Your task to perform on an android device: View the shopping cart on ebay.com. Add "macbook pro 15 inch" to the cart on ebay.com, then select checkout. Image 0: 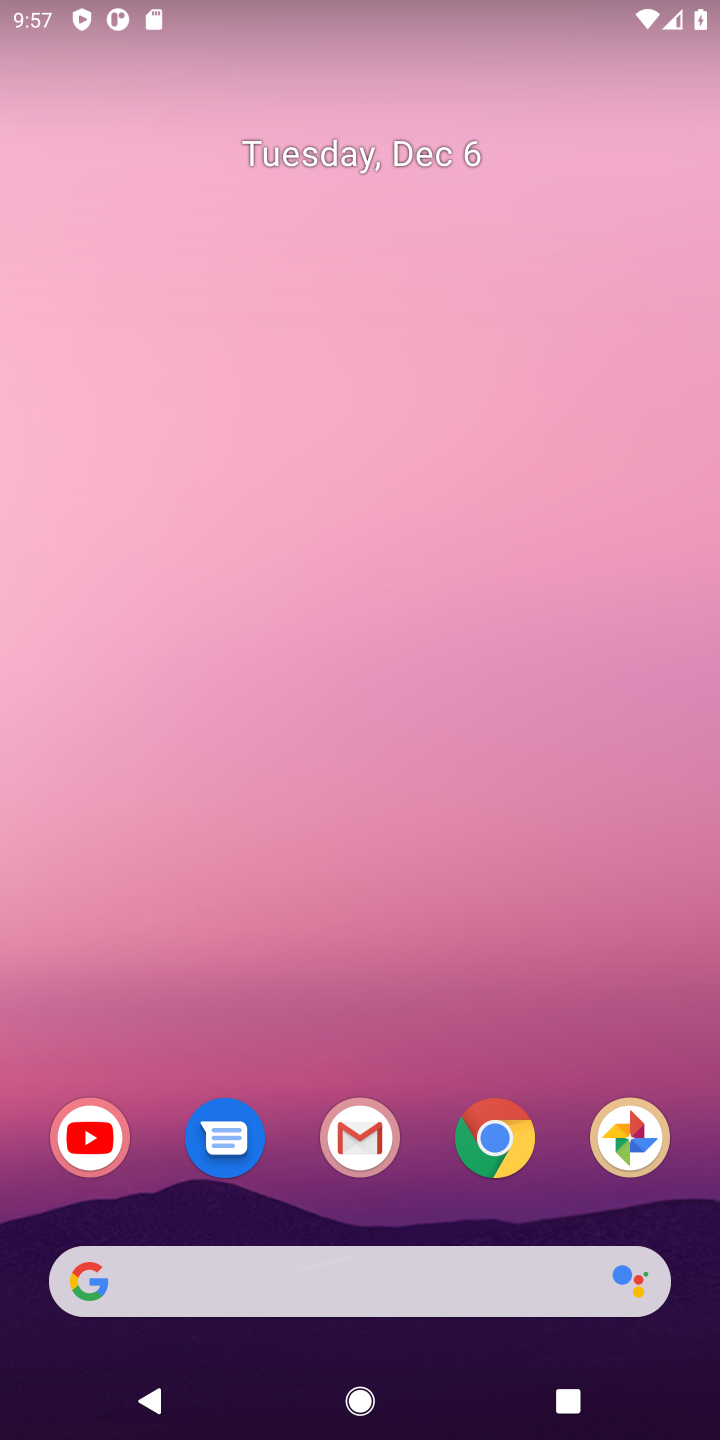
Step 0: click (497, 1147)
Your task to perform on an android device: View the shopping cart on ebay.com. Add "macbook pro 15 inch" to the cart on ebay.com, then select checkout. Image 1: 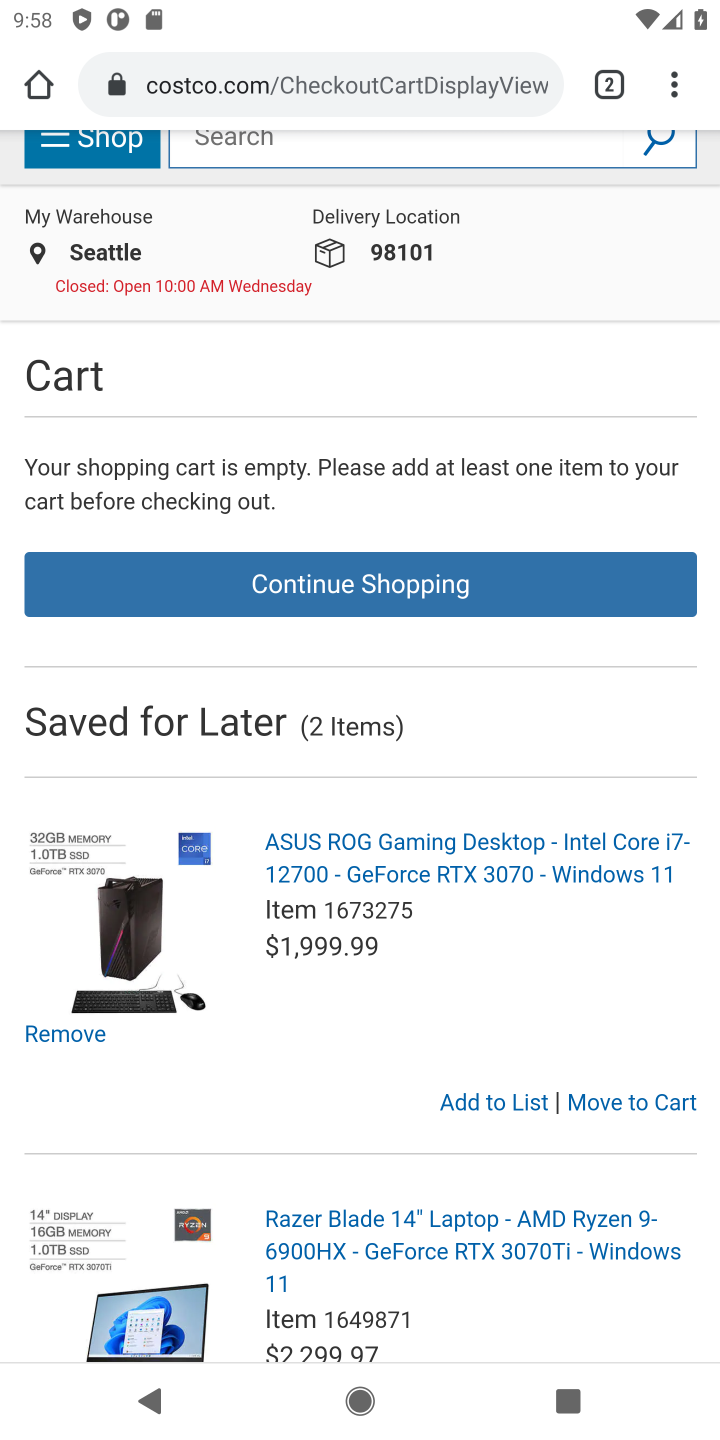
Step 1: click (269, 89)
Your task to perform on an android device: View the shopping cart on ebay.com. Add "macbook pro 15 inch" to the cart on ebay.com, then select checkout. Image 2: 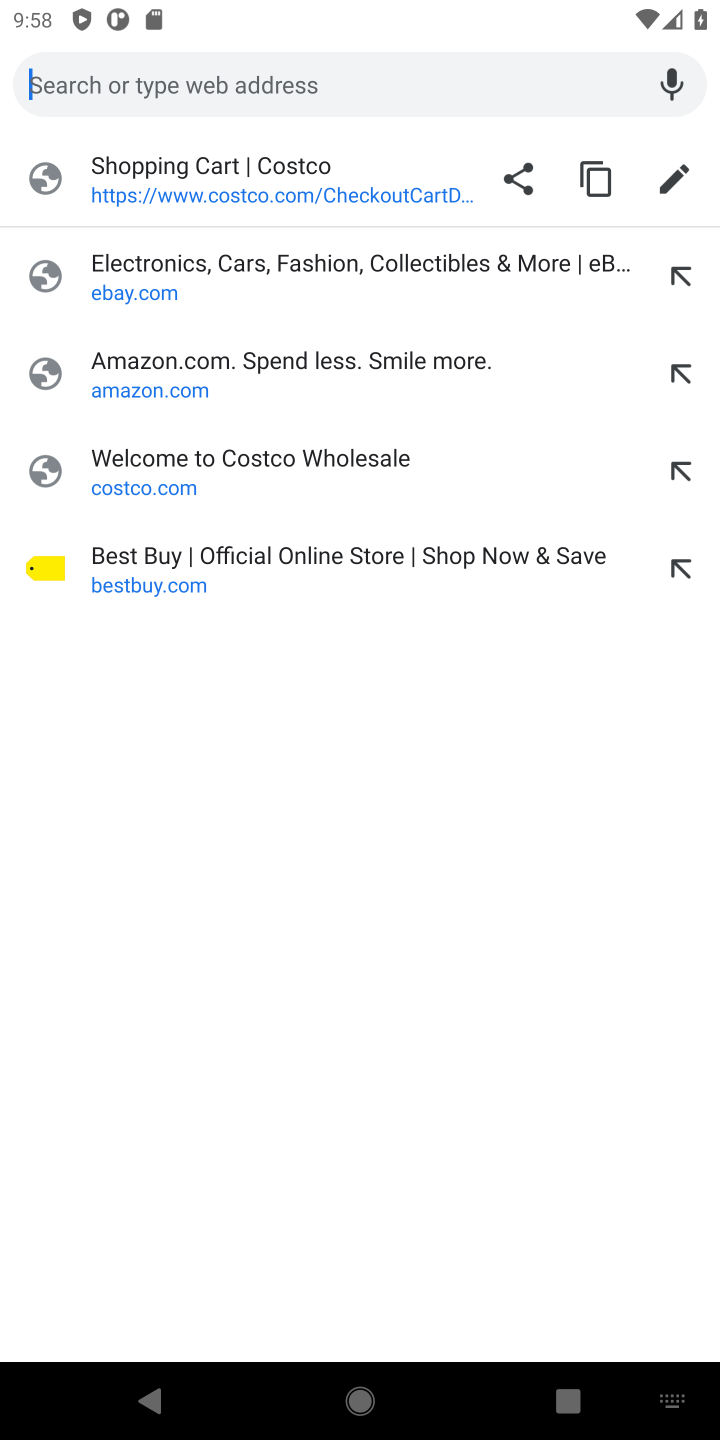
Step 2: click (143, 262)
Your task to perform on an android device: View the shopping cart on ebay.com. Add "macbook pro 15 inch" to the cart on ebay.com, then select checkout. Image 3: 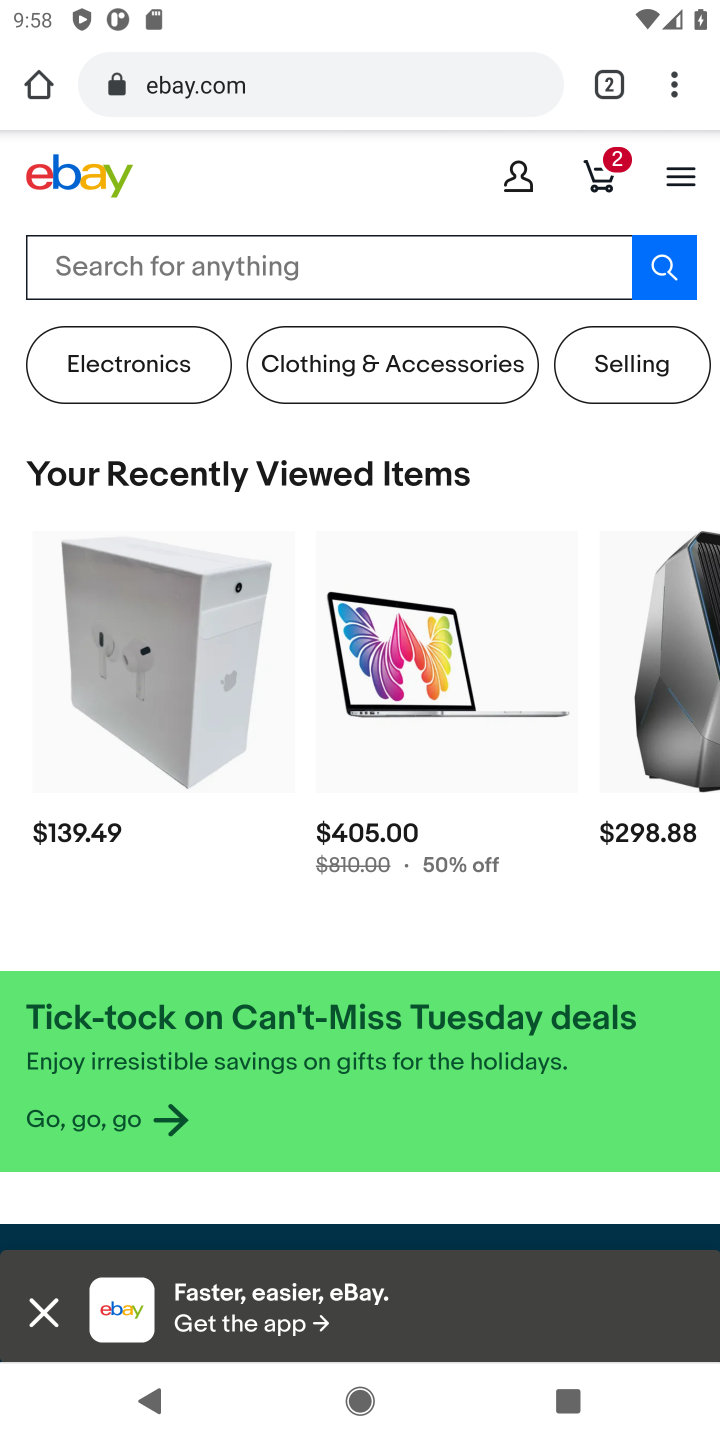
Step 3: click (607, 174)
Your task to perform on an android device: View the shopping cart on ebay.com. Add "macbook pro 15 inch" to the cart on ebay.com, then select checkout. Image 4: 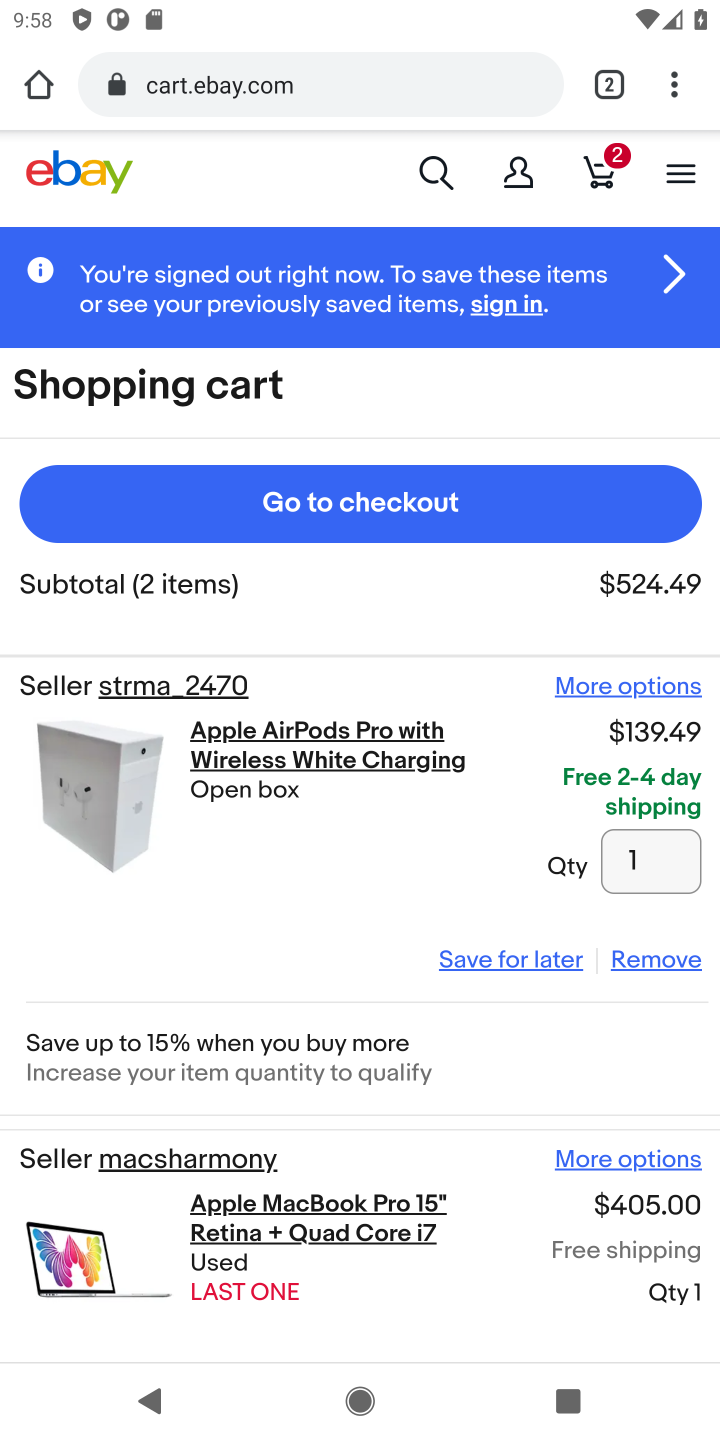
Step 4: click (440, 166)
Your task to perform on an android device: View the shopping cart on ebay.com. Add "macbook pro 15 inch" to the cart on ebay.com, then select checkout. Image 5: 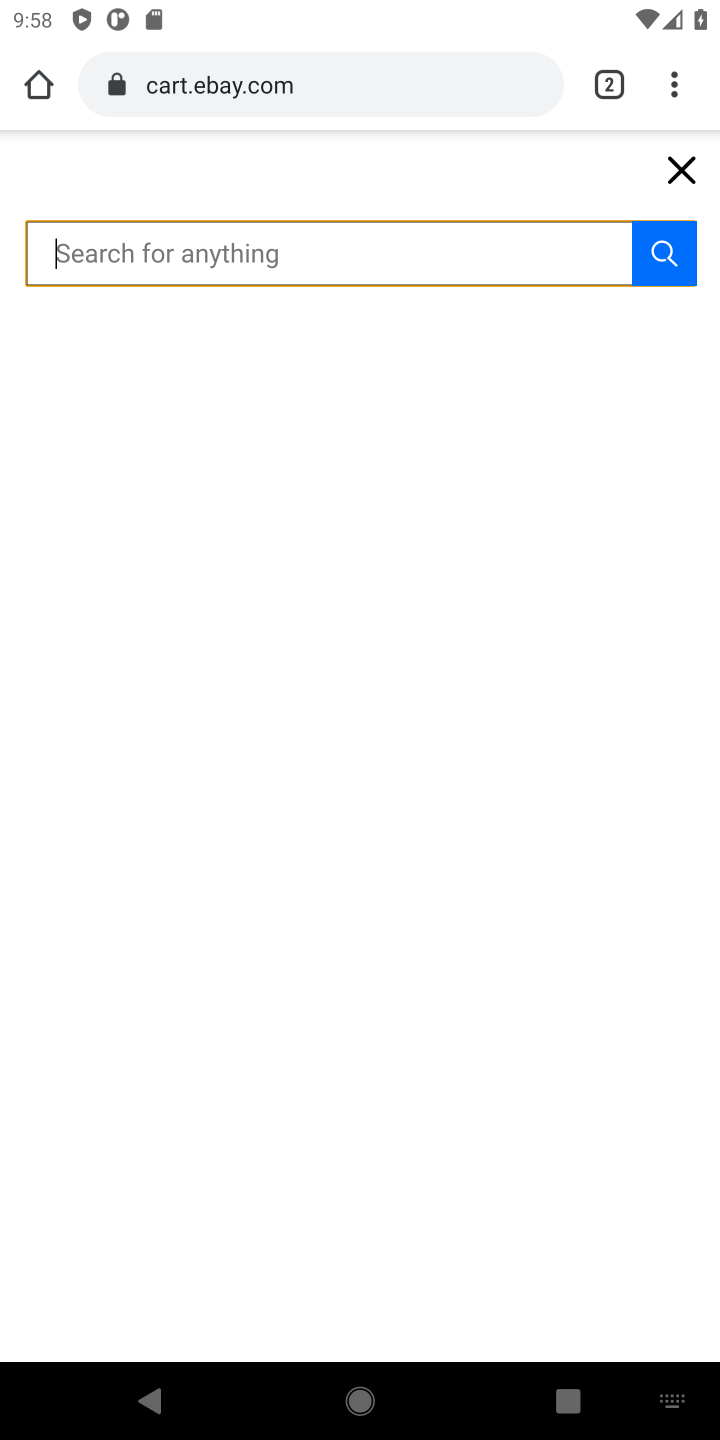
Step 5: type "macbook pro 15 inch"
Your task to perform on an android device: View the shopping cart on ebay.com. Add "macbook pro 15 inch" to the cart on ebay.com, then select checkout. Image 6: 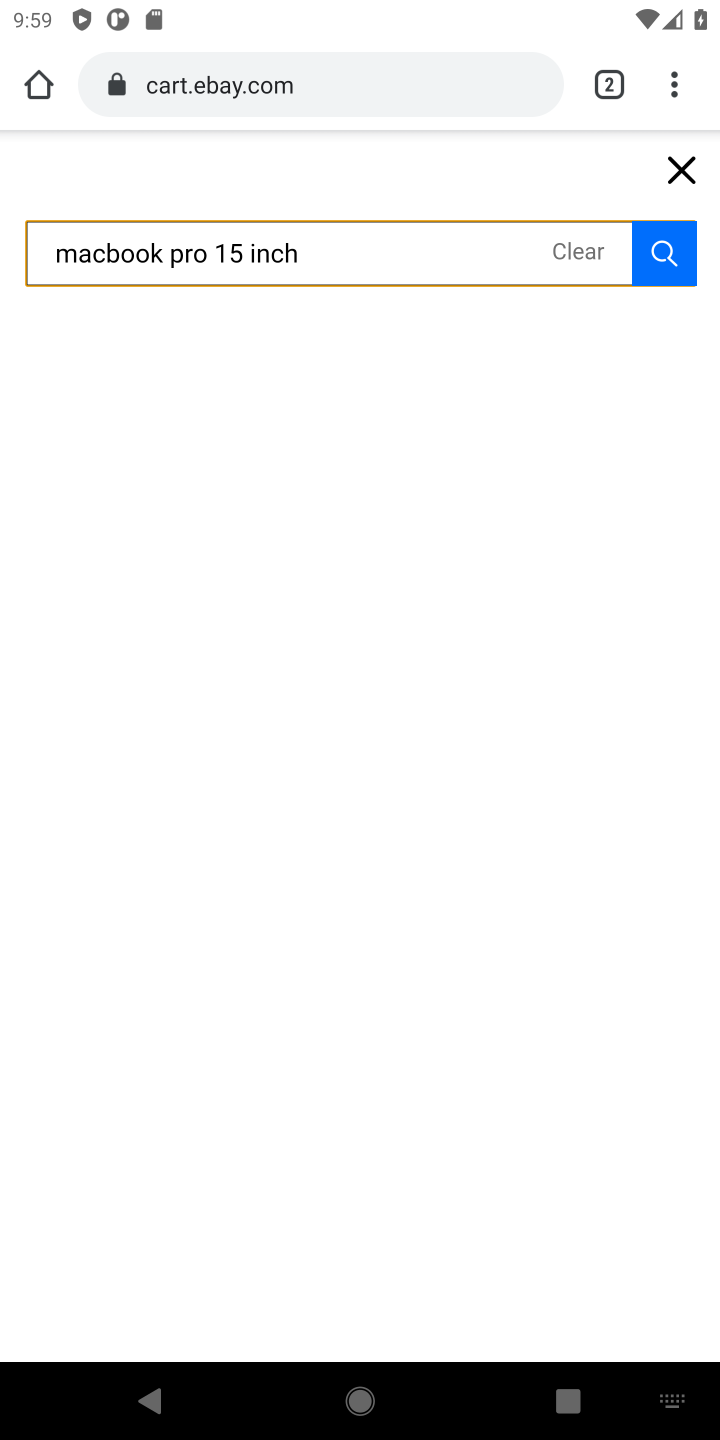
Step 6: click (665, 253)
Your task to perform on an android device: View the shopping cart on ebay.com. Add "macbook pro 15 inch" to the cart on ebay.com, then select checkout. Image 7: 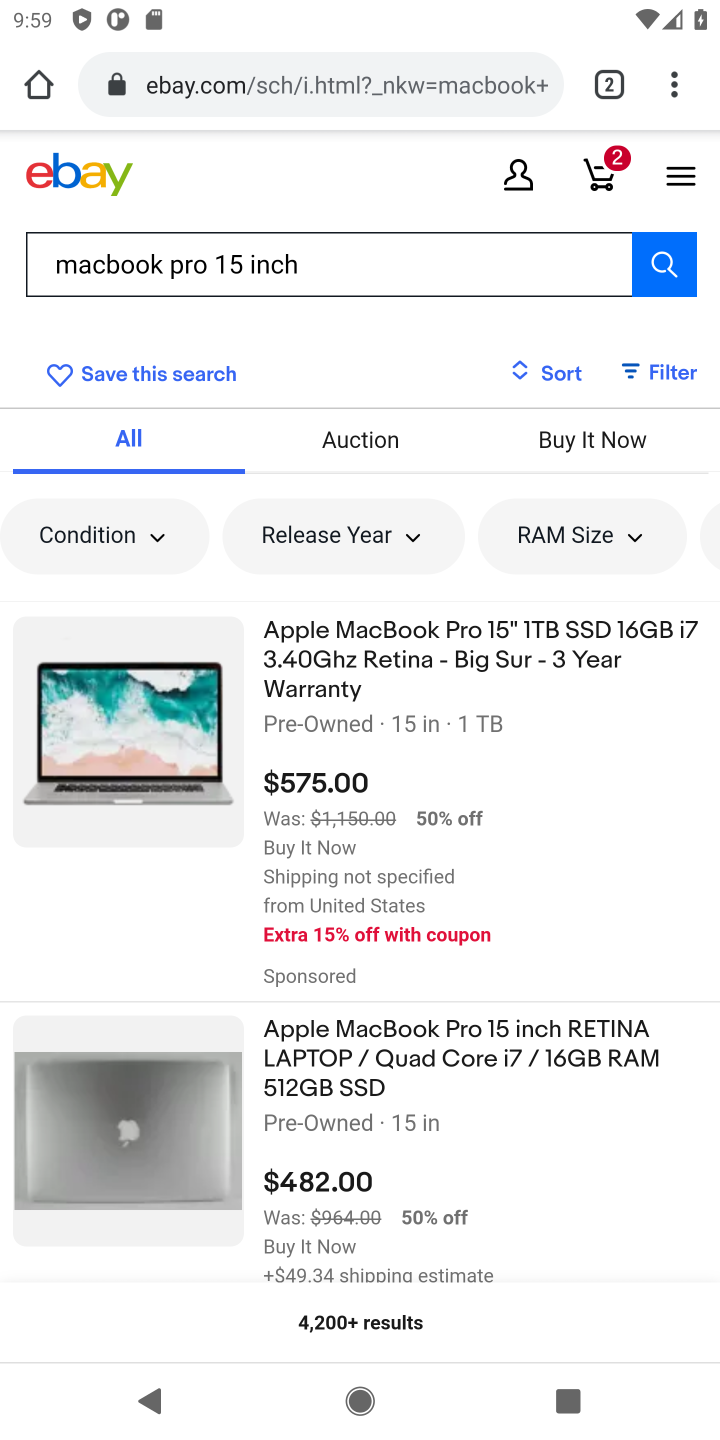
Step 7: click (289, 716)
Your task to perform on an android device: View the shopping cart on ebay.com. Add "macbook pro 15 inch" to the cart on ebay.com, then select checkout. Image 8: 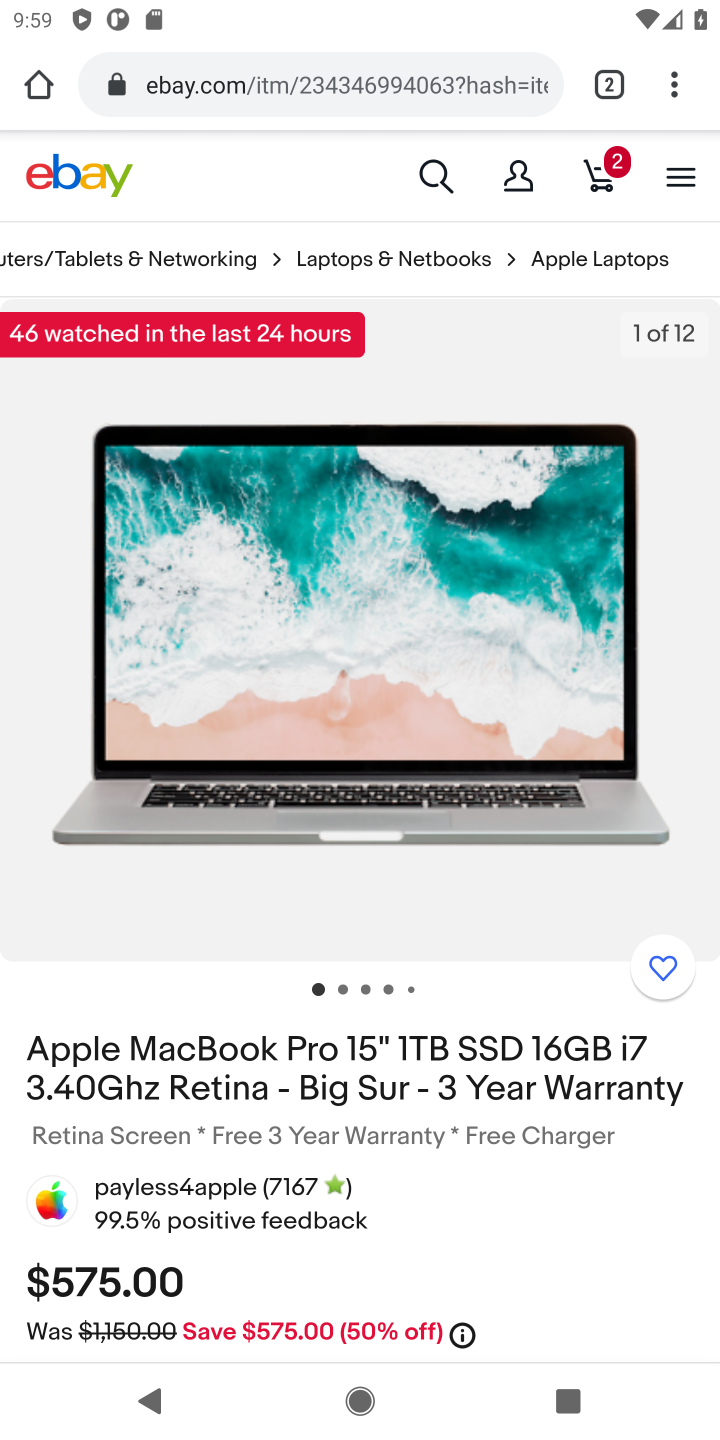
Step 8: drag from (397, 1016) to (406, 440)
Your task to perform on an android device: View the shopping cart on ebay.com. Add "macbook pro 15 inch" to the cart on ebay.com, then select checkout. Image 9: 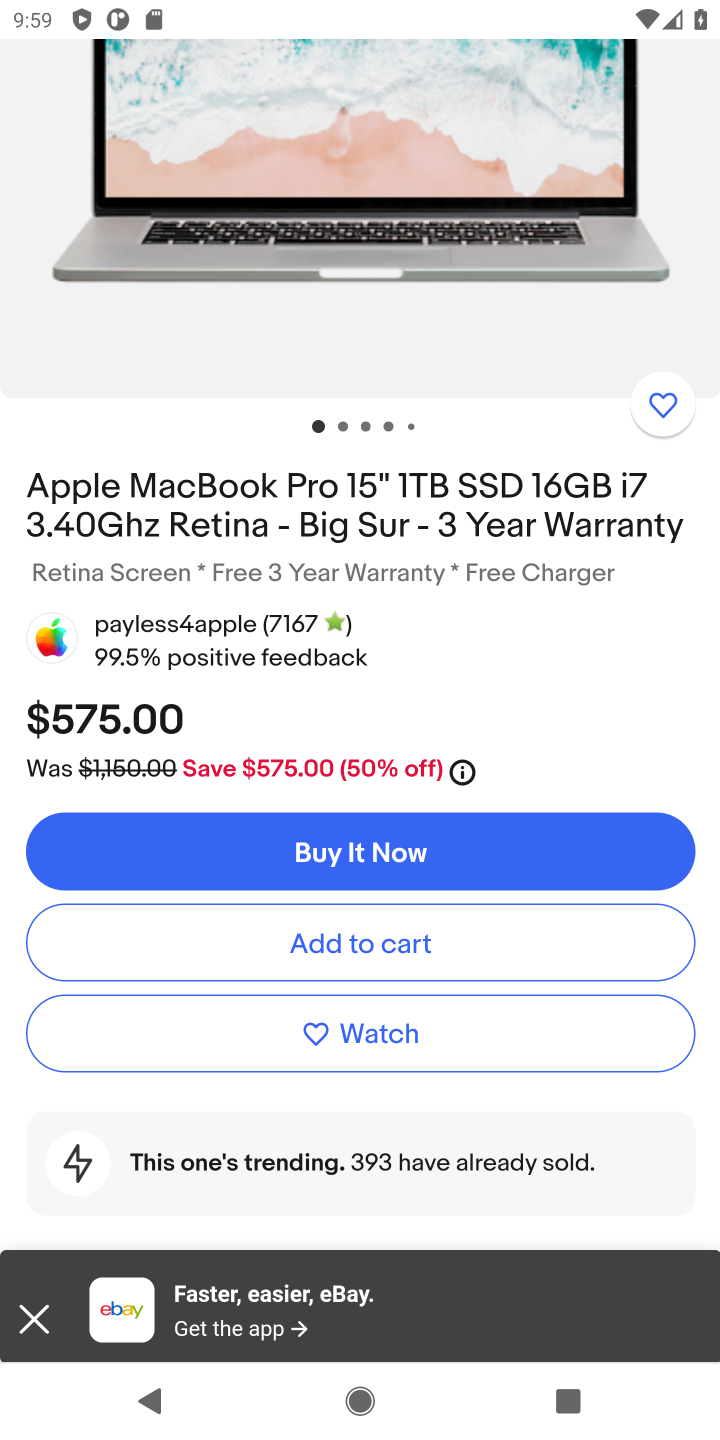
Step 9: click (362, 939)
Your task to perform on an android device: View the shopping cart on ebay.com. Add "macbook pro 15 inch" to the cart on ebay.com, then select checkout. Image 10: 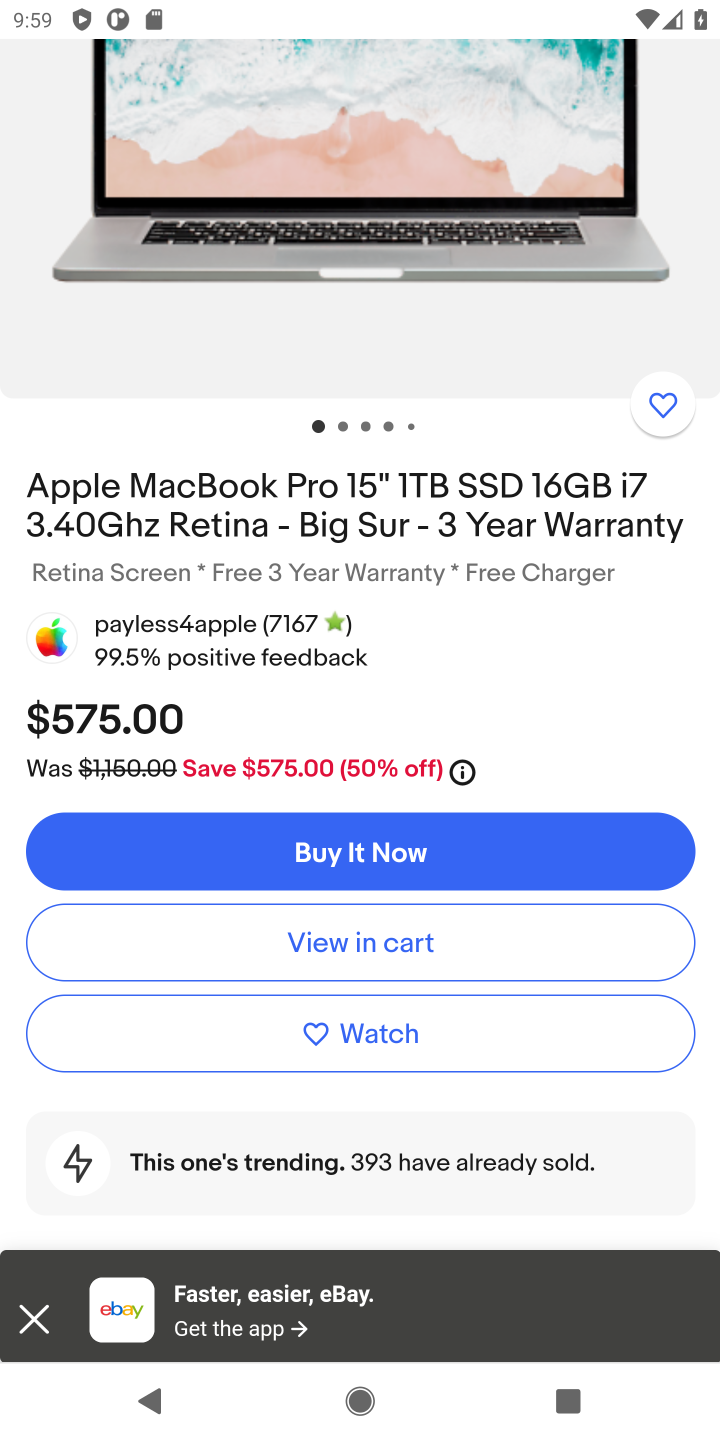
Step 10: click (362, 939)
Your task to perform on an android device: View the shopping cart on ebay.com. Add "macbook pro 15 inch" to the cart on ebay.com, then select checkout. Image 11: 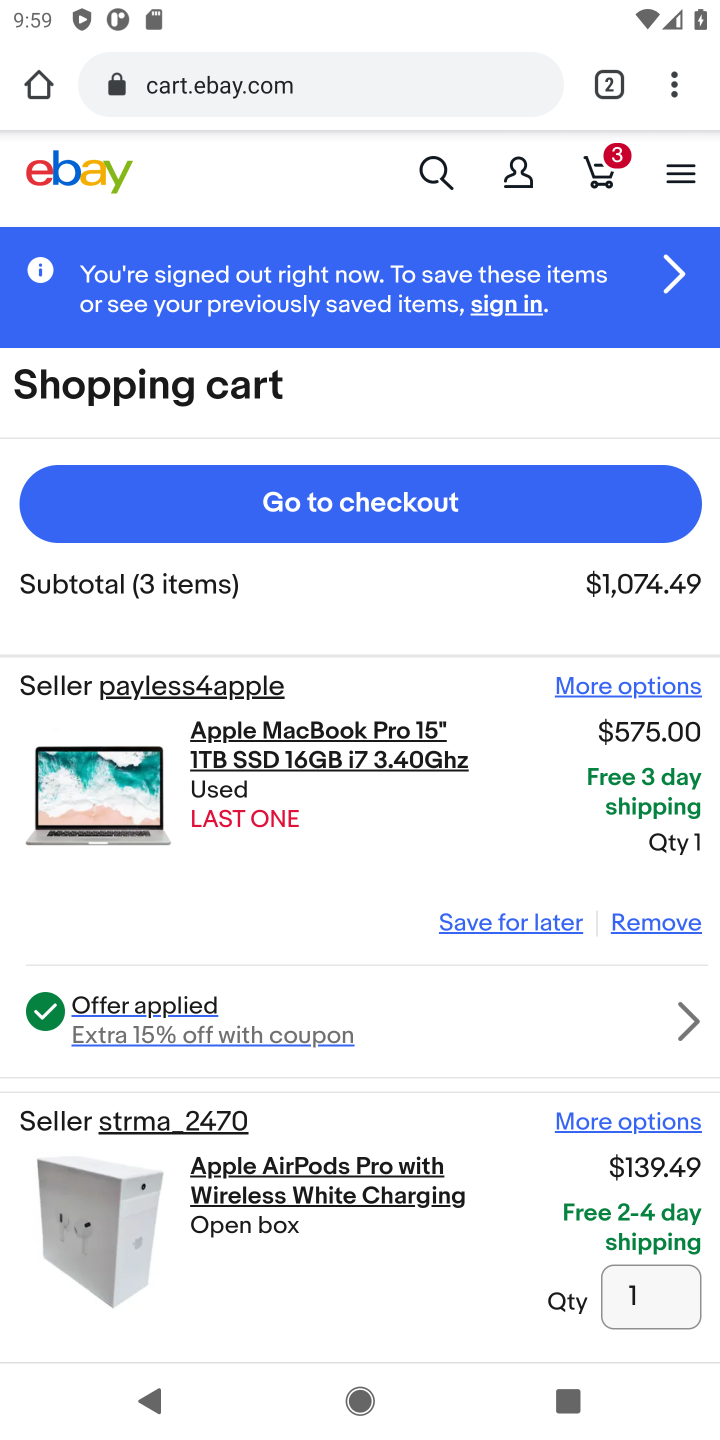
Step 11: click (346, 492)
Your task to perform on an android device: View the shopping cart on ebay.com. Add "macbook pro 15 inch" to the cart on ebay.com, then select checkout. Image 12: 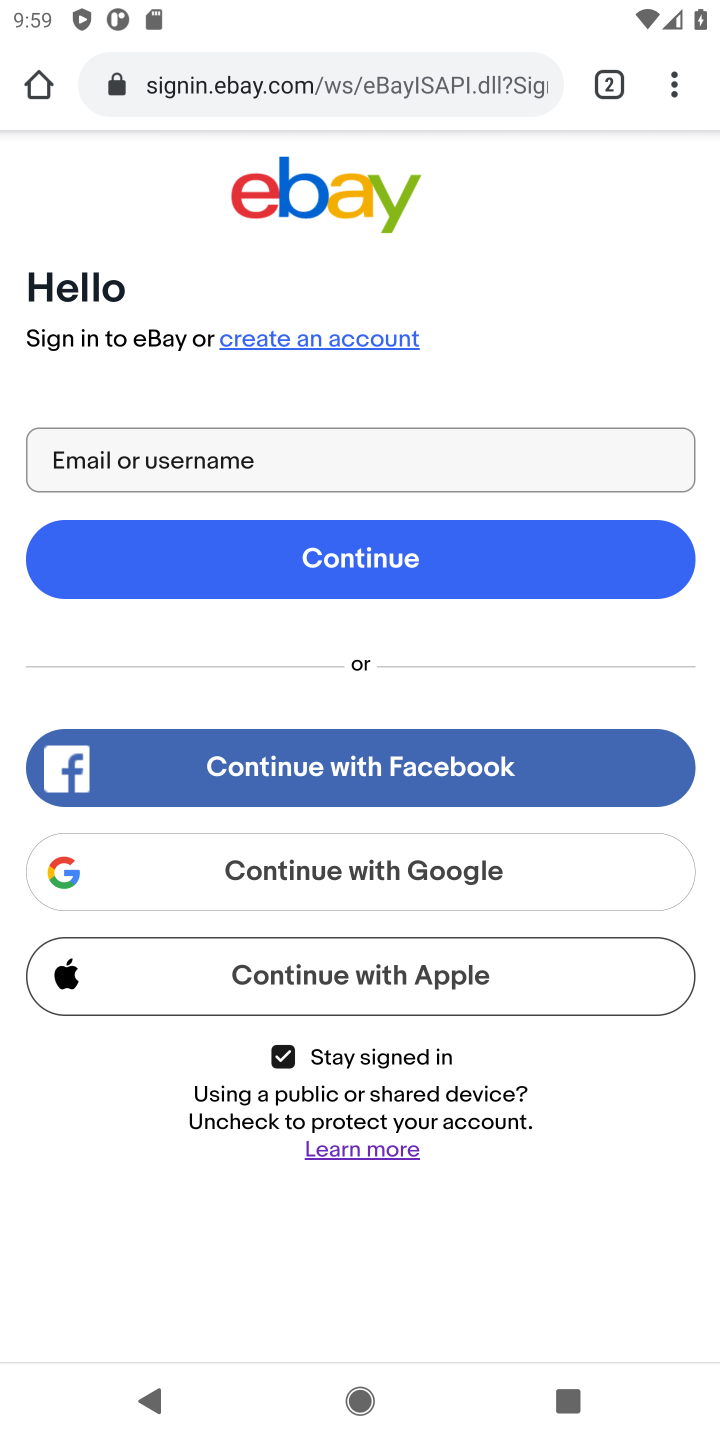
Step 12: task complete